Your task to perform on an android device: Do I have any events this weekend? Image 0: 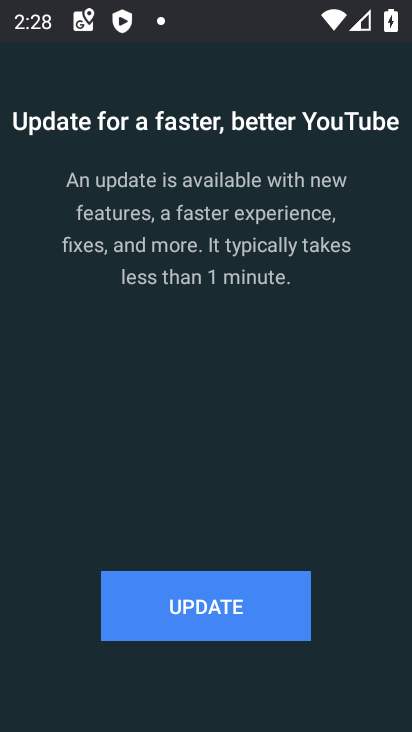
Step 0: press home button
Your task to perform on an android device: Do I have any events this weekend? Image 1: 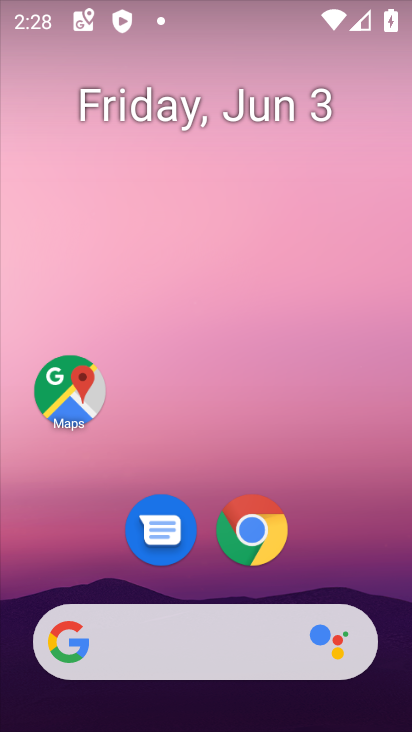
Step 1: drag from (344, 511) to (203, 114)
Your task to perform on an android device: Do I have any events this weekend? Image 2: 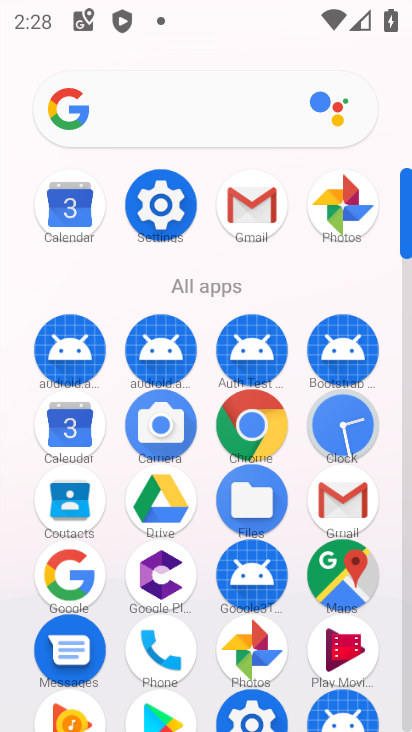
Step 2: click (70, 424)
Your task to perform on an android device: Do I have any events this weekend? Image 3: 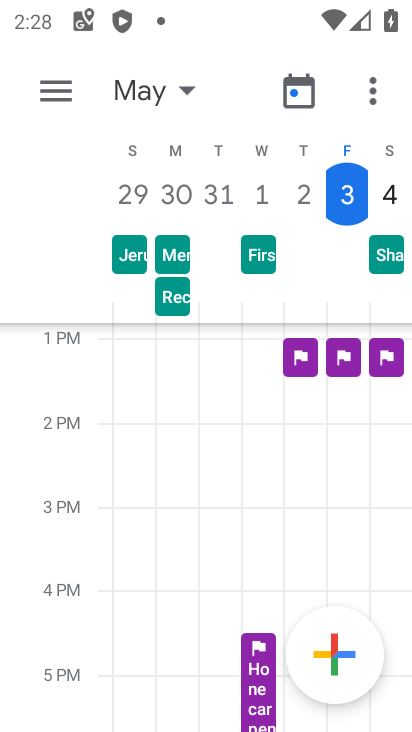
Step 3: click (190, 92)
Your task to perform on an android device: Do I have any events this weekend? Image 4: 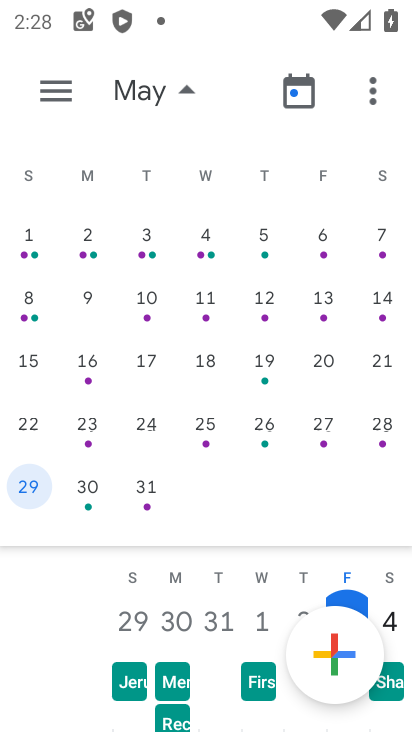
Step 4: drag from (375, 314) to (13, 330)
Your task to perform on an android device: Do I have any events this weekend? Image 5: 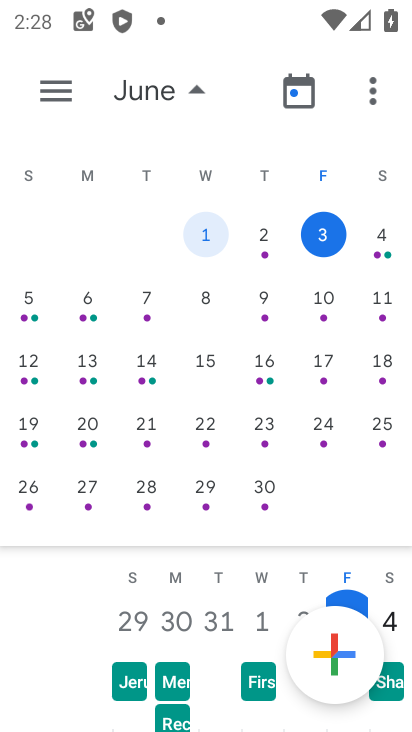
Step 5: click (327, 234)
Your task to perform on an android device: Do I have any events this weekend? Image 6: 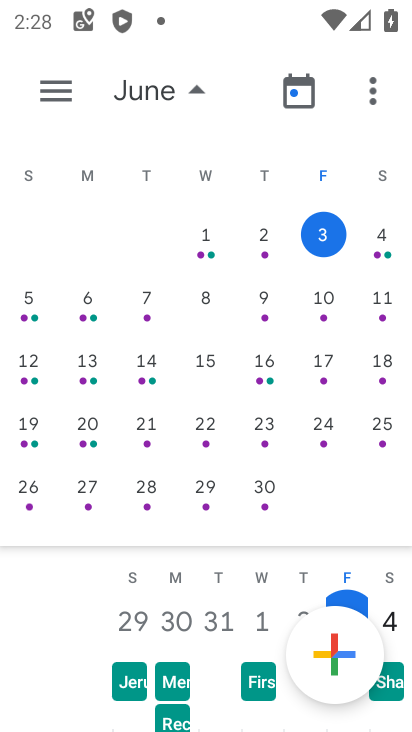
Step 6: task complete